Your task to perform on an android device: Set the phone to "Do not disturb". Image 0: 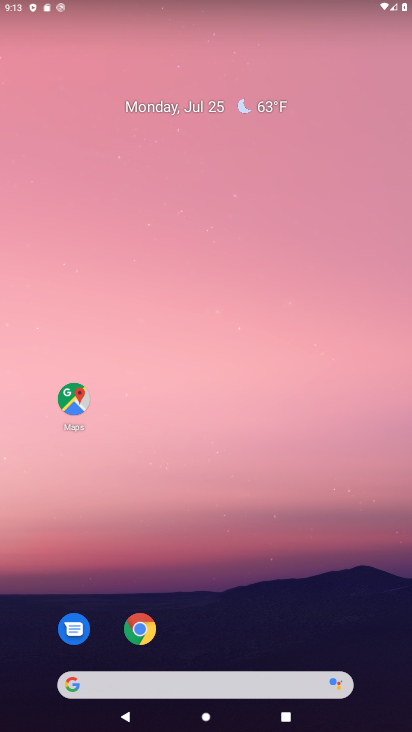
Step 0: drag from (322, 602) to (317, 188)
Your task to perform on an android device: Set the phone to "Do not disturb". Image 1: 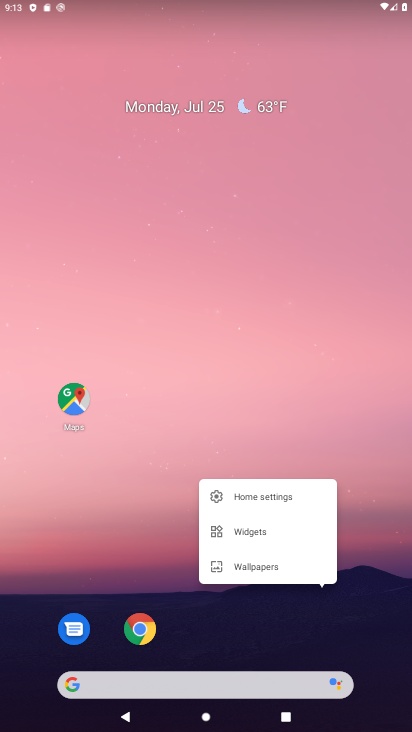
Step 1: click (230, 630)
Your task to perform on an android device: Set the phone to "Do not disturb". Image 2: 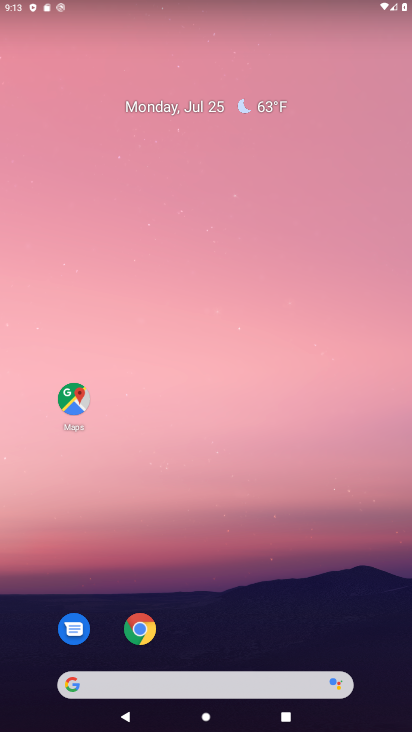
Step 2: drag from (230, 630) to (186, 333)
Your task to perform on an android device: Set the phone to "Do not disturb". Image 3: 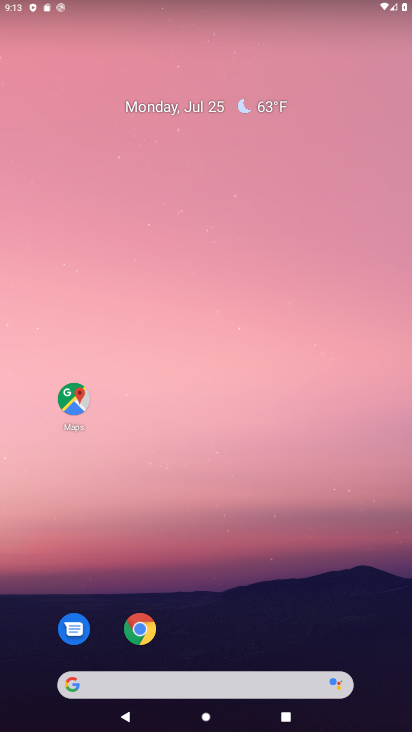
Step 3: drag from (314, 651) to (236, 55)
Your task to perform on an android device: Set the phone to "Do not disturb". Image 4: 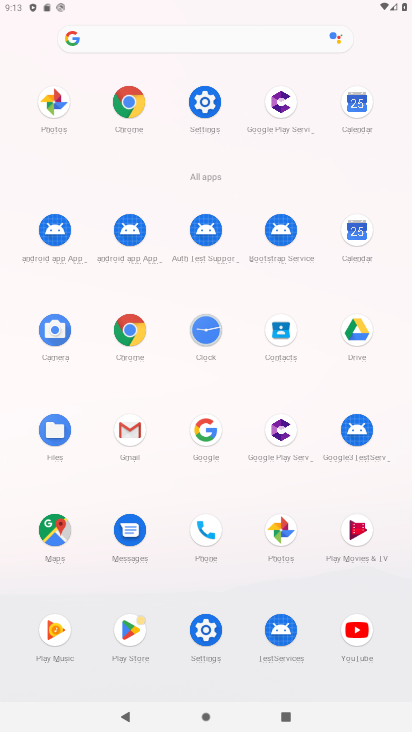
Step 4: click (204, 99)
Your task to perform on an android device: Set the phone to "Do not disturb". Image 5: 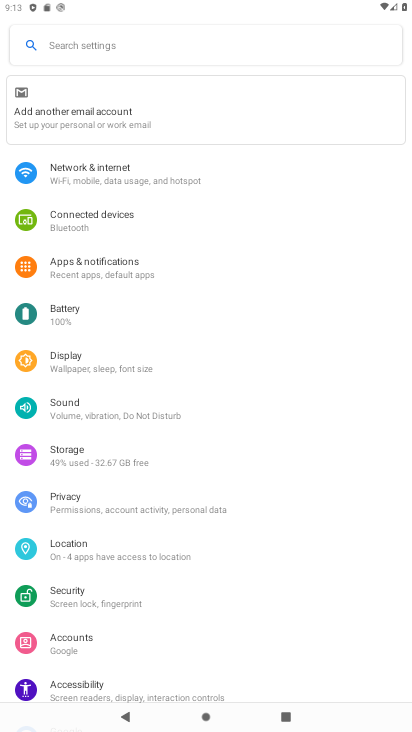
Step 5: click (200, 407)
Your task to perform on an android device: Set the phone to "Do not disturb". Image 6: 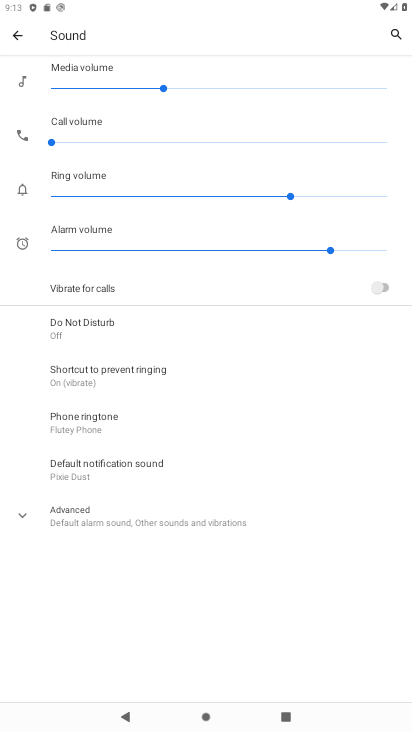
Step 6: click (156, 331)
Your task to perform on an android device: Set the phone to "Do not disturb". Image 7: 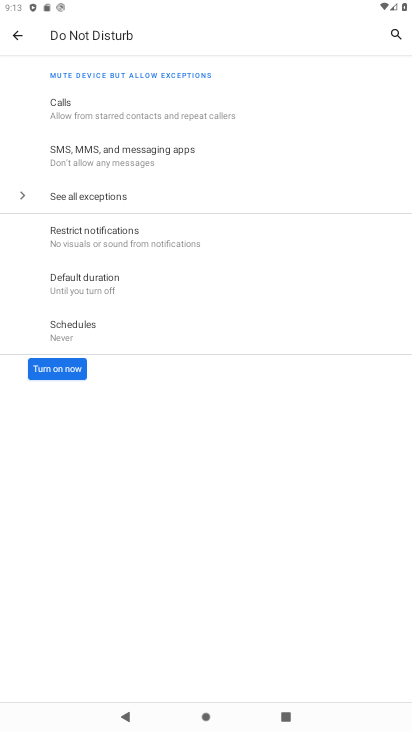
Step 7: click (66, 369)
Your task to perform on an android device: Set the phone to "Do not disturb". Image 8: 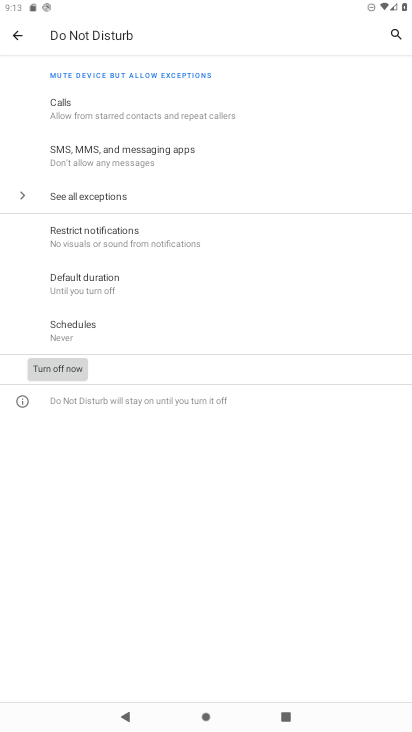
Step 8: task complete